Your task to perform on an android device: toggle airplane mode Image 0: 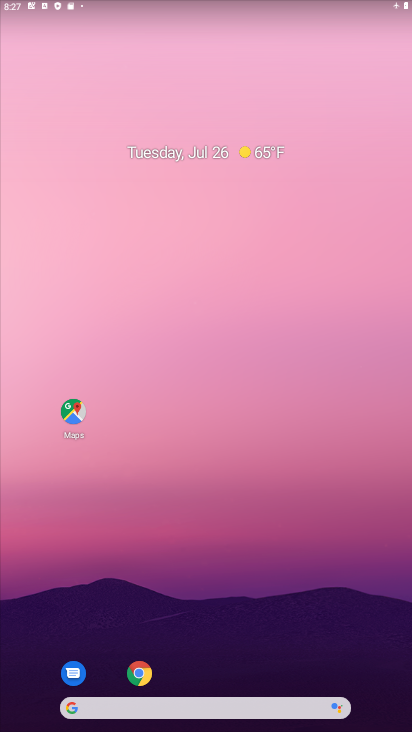
Step 0: drag from (220, 626) to (211, 183)
Your task to perform on an android device: toggle airplane mode Image 1: 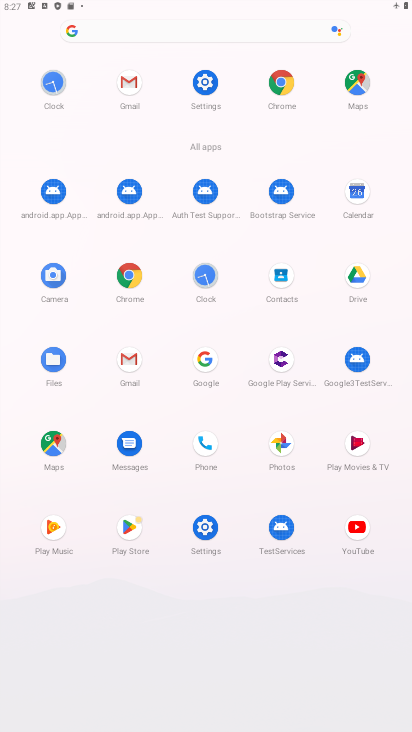
Step 1: click (206, 67)
Your task to perform on an android device: toggle airplane mode Image 2: 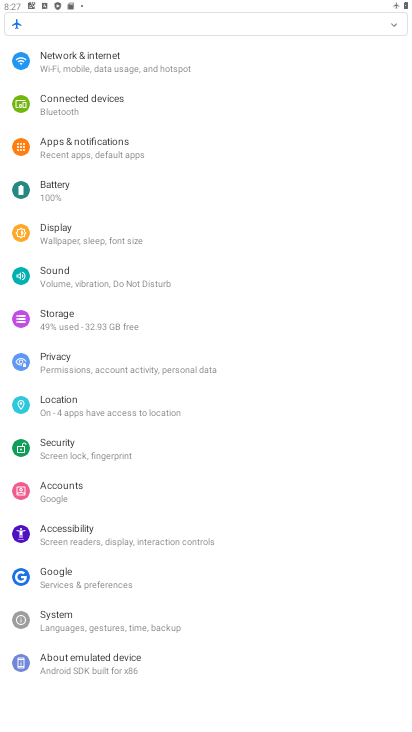
Step 2: click (187, 71)
Your task to perform on an android device: toggle airplane mode Image 3: 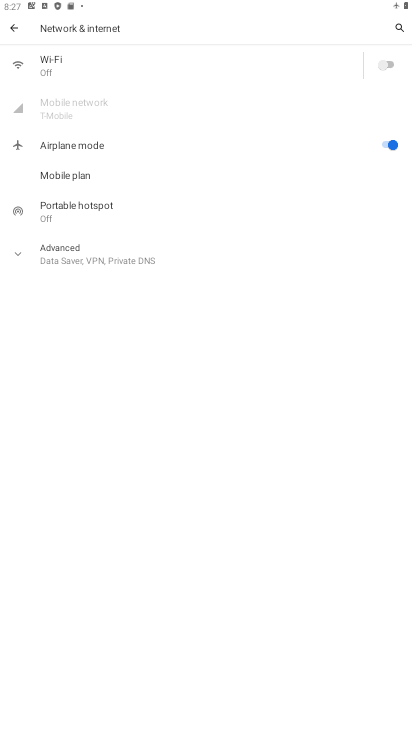
Step 3: click (380, 149)
Your task to perform on an android device: toggle airplane mode Image 4: 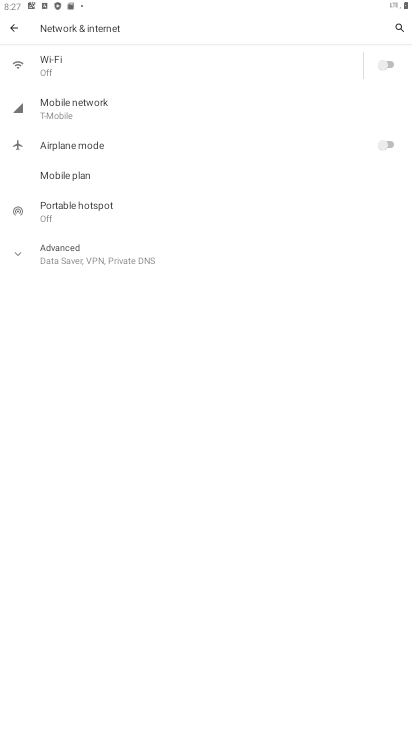
Step 4: task complete